Your task to perform on an android device: Do I have any events tomorrow? Image 0: 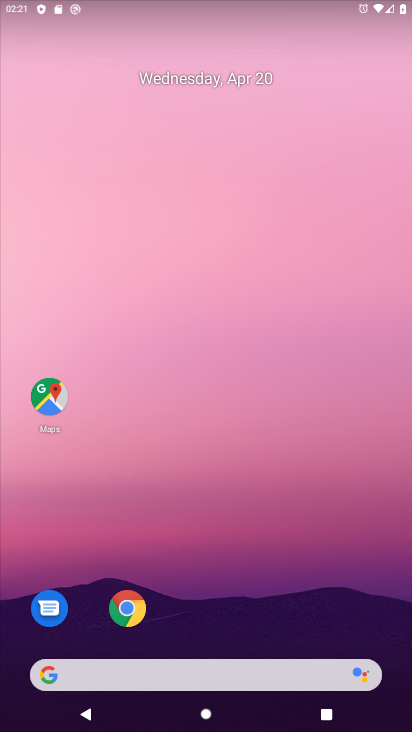
Step 0: drag from (245, 586) to (238, 141)
Your task to perform on an android device: Do I have any events tomorrow? Image 1: 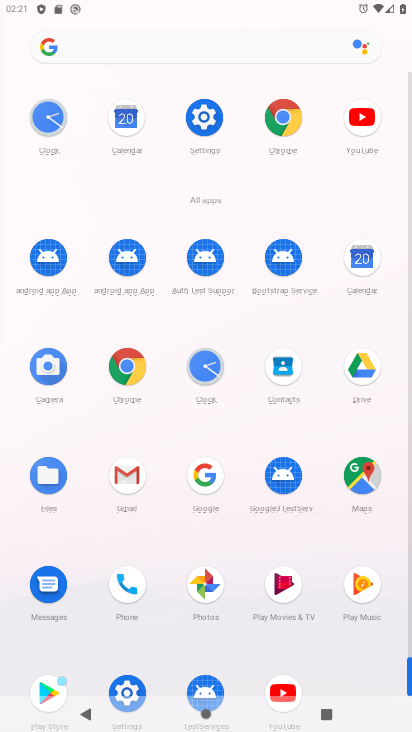
Step 1: click (355, 254)
Your task to perform on an android device: Do I have any events tomorrow? Image 2: 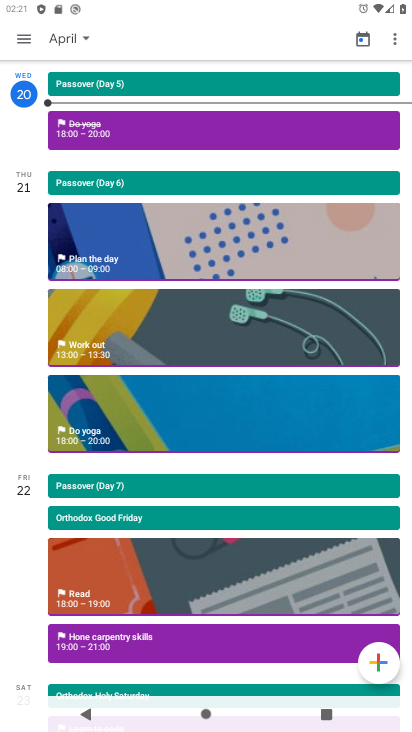
Step 2: click (65, 51)
Your task to perform on an android device: Do I have any events tomorrow? Image 3: 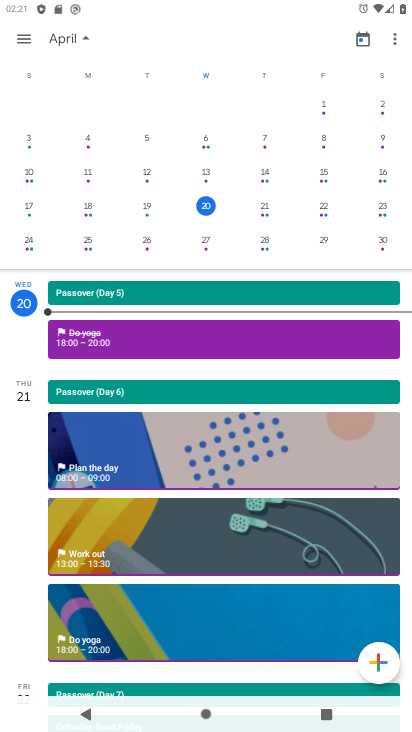
Step 3: click (263, 209)
Your task to perform on an android device: Do I have any events tomorrow? Image 4: 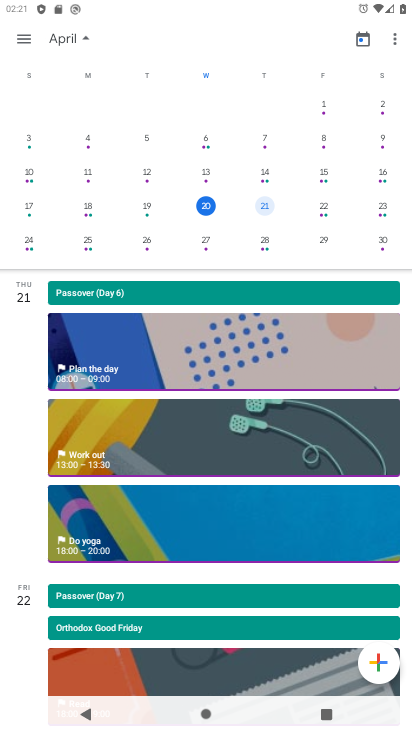
Step 4: task complete